Your task to perform on an android device: Go to Google Image 0: 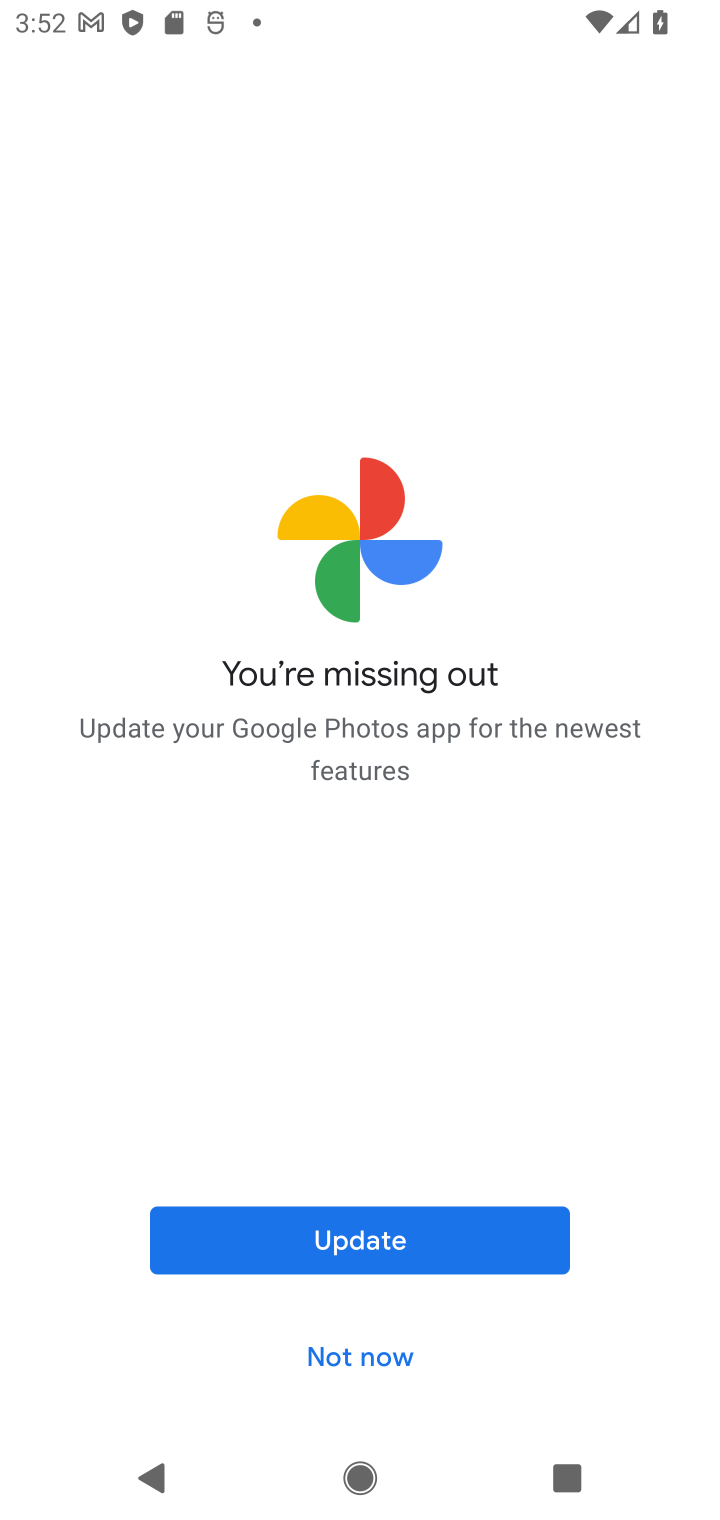
Step 0: press home button
Your task to perform on an android device: Go to Google Image 1: 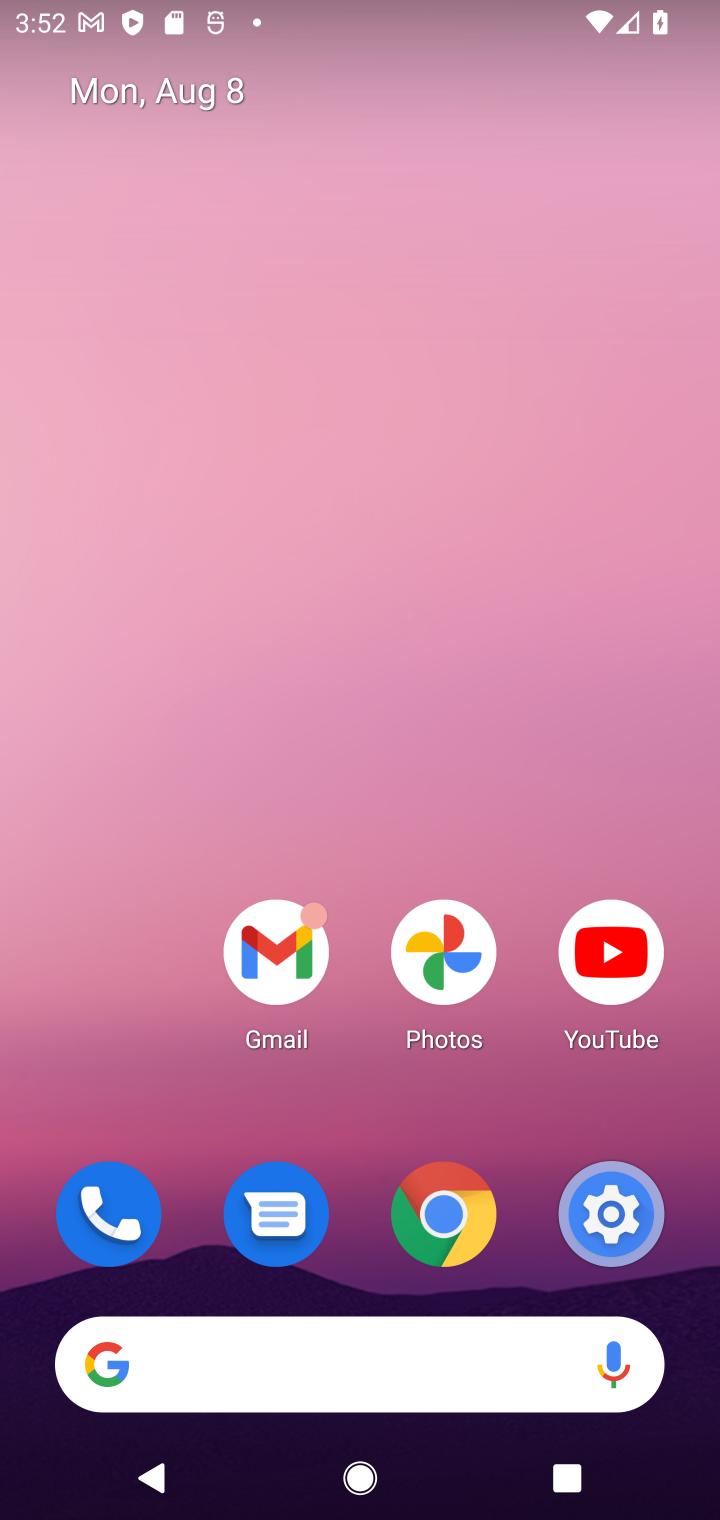
Step 1: drag from (393, 1311) to (411, 281)
Your task to perform on an android device: Go to Google Image 2: 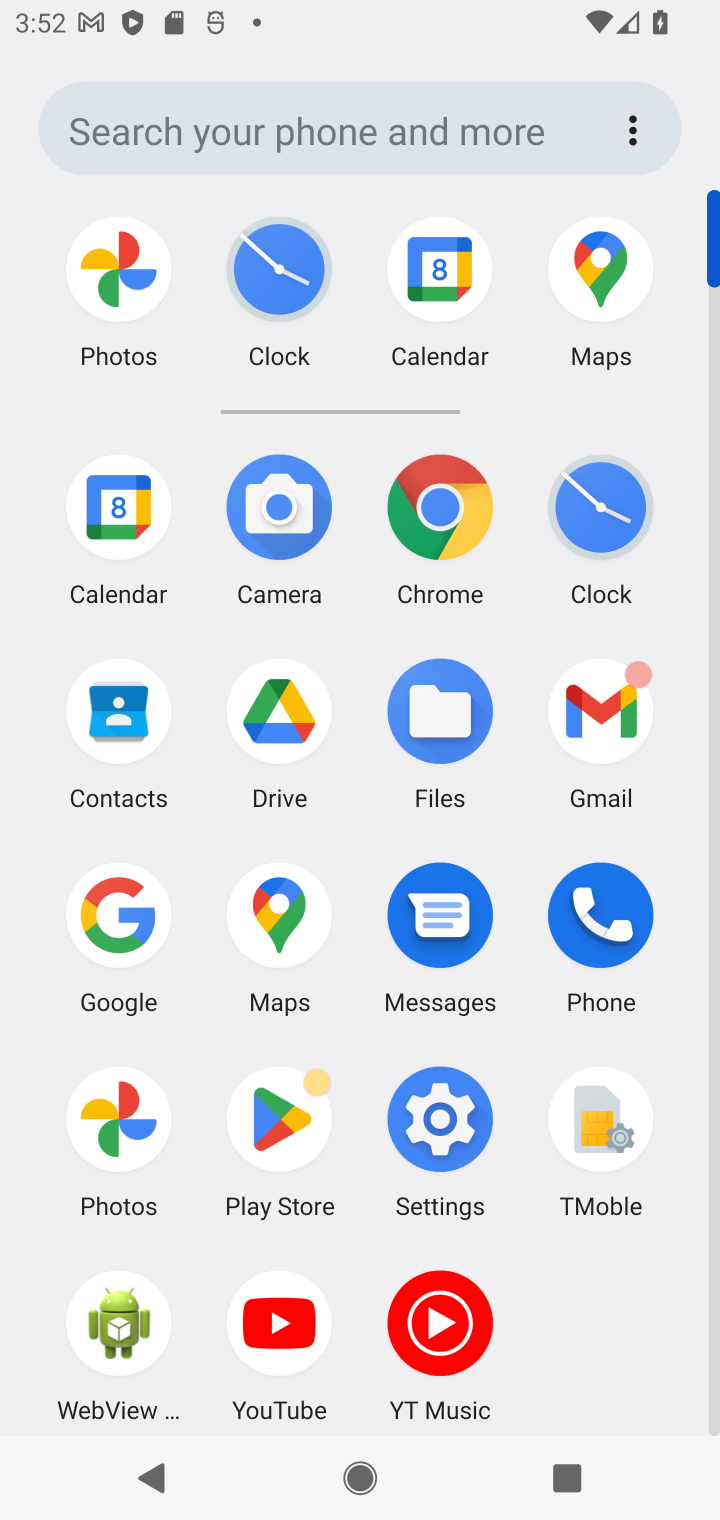
Step 2: click (124, 897)
Your task to perform on an android device: Go to Google Image 3: 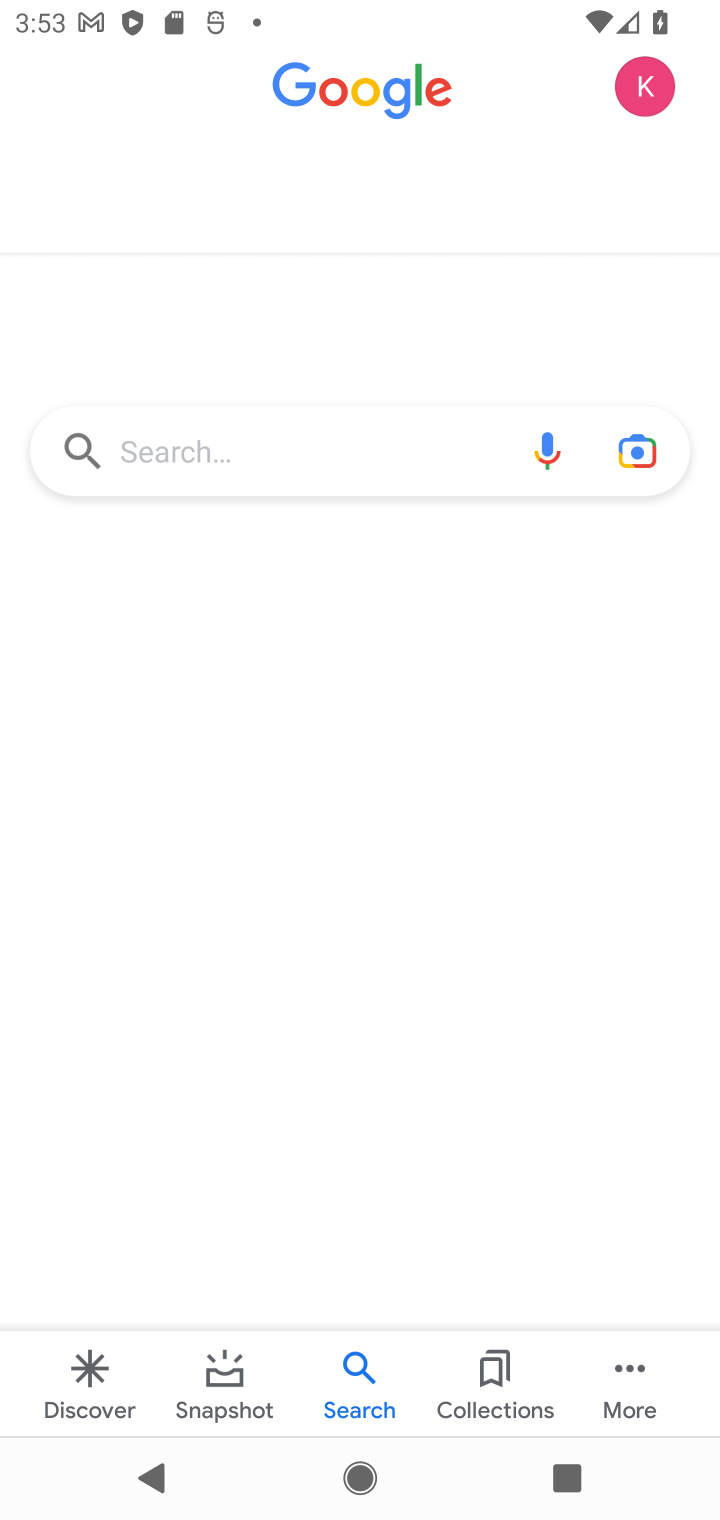
Step 3: task complete